Your task to perform on an android device: turn vacation reply on in the gmail app Image 0: 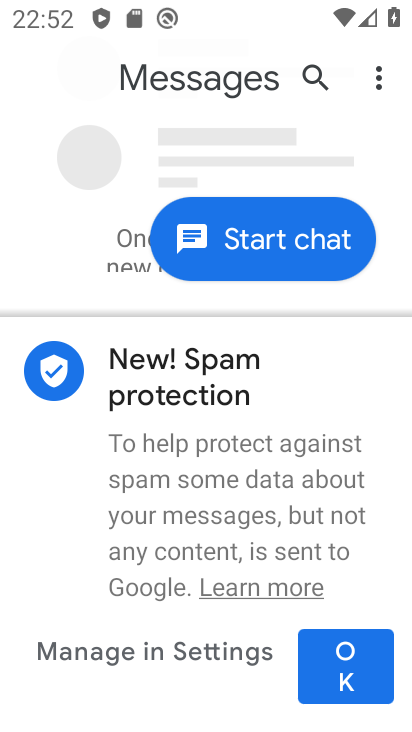
Step 0: press home button
Your task to perform on an android device: turn vacation reply on in the gmail app Image 1: 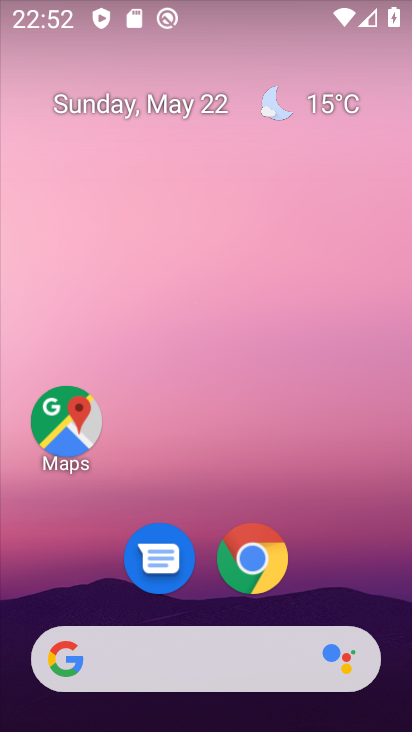
Step 1: drag from (352, 594) to (318, 7)
Your task to perform on an android device: turn vacation reply on in the gmail app Image 2: 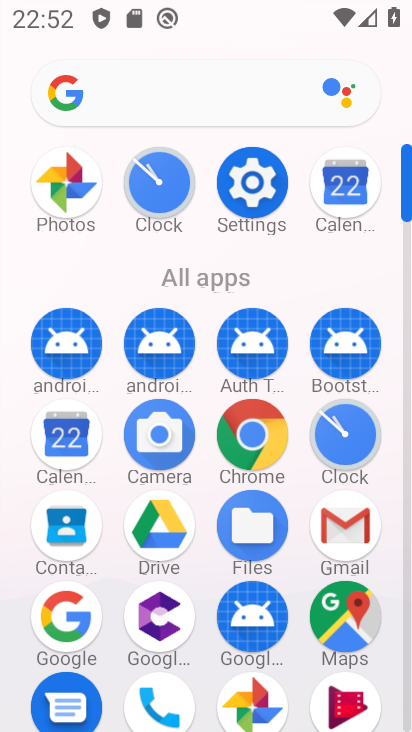
Step 2: click (351, 529)
Your task to perform on an android device: turn vacation reply on in the gmail app Image 3: 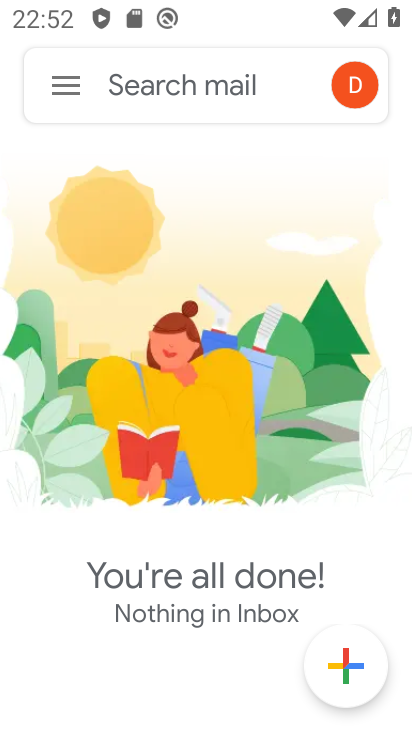
Step 3: click (62, 86)
Your task to perform on an android device: turn vacation reply on in the gmail app Image 4: 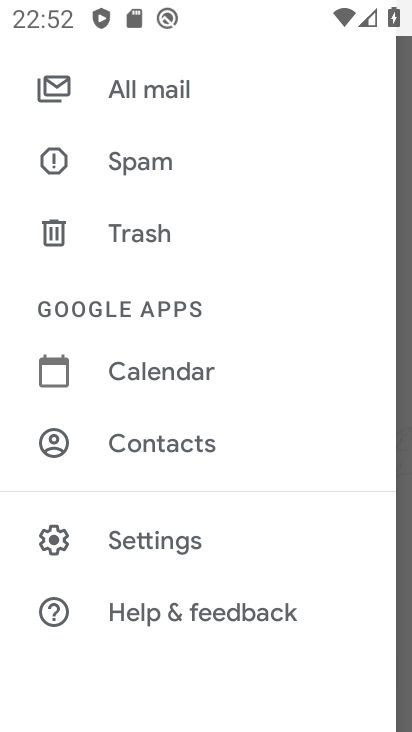
Step 4: click (146, 543)
Your task to perform on an android device: turn vacation reply on in the gmail app Image 5: 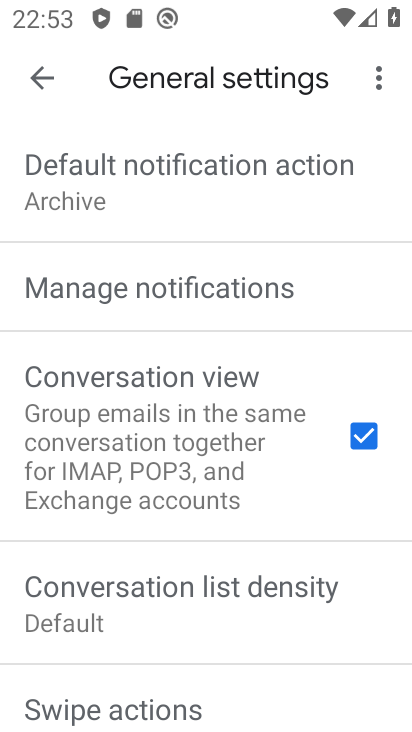
Step 5: click (34, 76)
Your task to perform on an android device: turn vacation reply on in the gmail app Image 6: 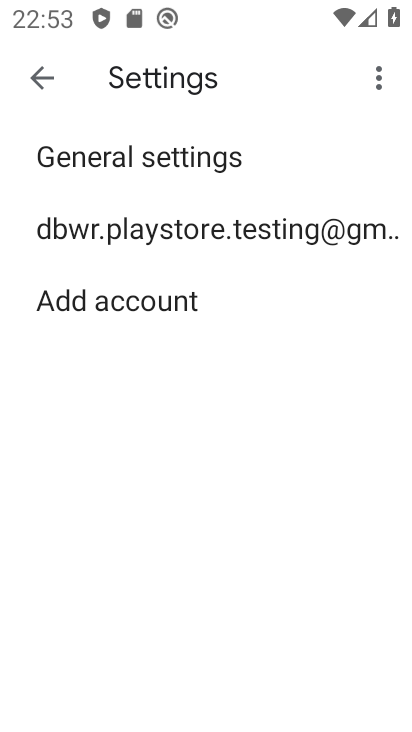
Step 6: click (124, 225)
Your task to perform on an android device: turn vacation reply on in the gmail app Image 7: 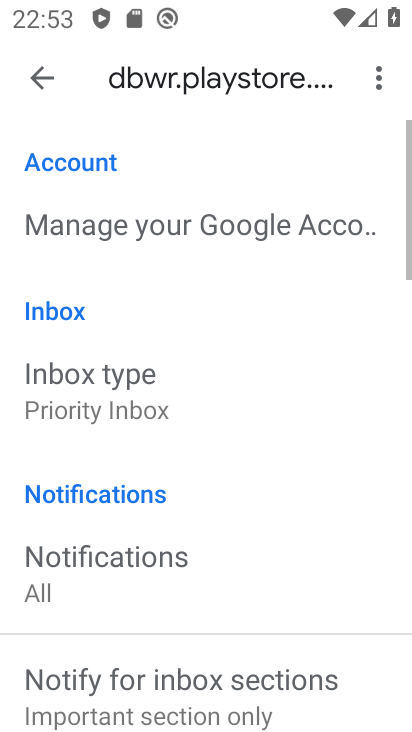
Step 7: drag from (207, 570) to (202, 127)
Your task to perform on an android device: turn vacation reply on in the gmail app Image 8: 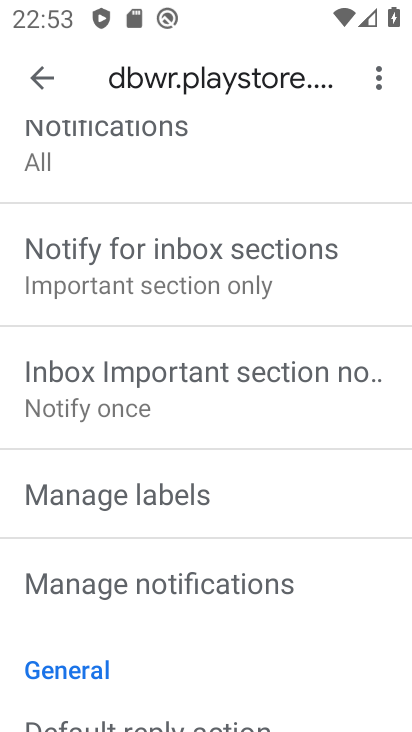
Step 8: drag from (199, 536) to (201, 121)
Your task to perform on an android device: turn vacation reply on in the gmail app Image 9: 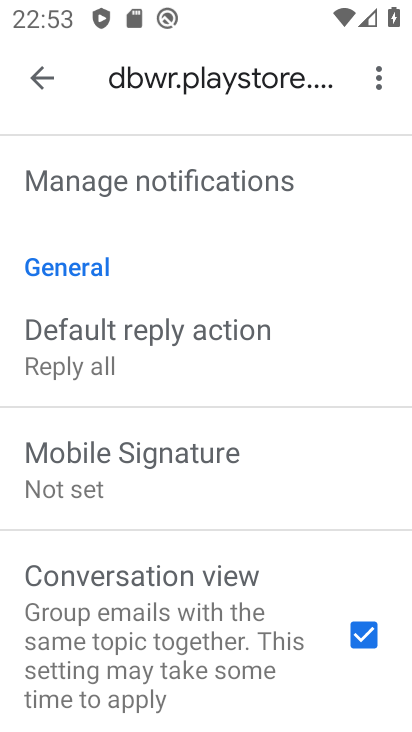
Step 9: drag from (184, 517) to (158, 195)
Your task to perform on an android device: turn vacation reply on in the gmail app Image 10: 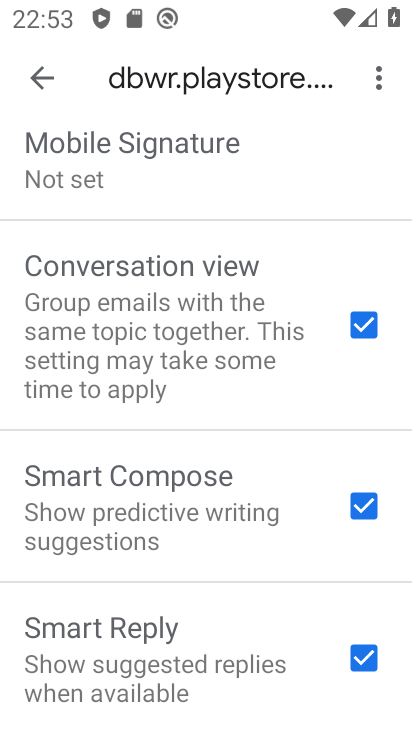
Step 10: drag from (139, 600) to (142, 243)
Your task to perform on an android device: turn vacation reply on in the gmail app Image 11: 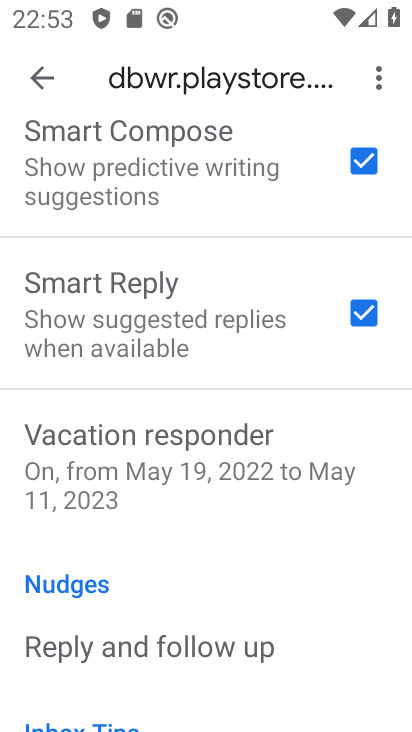
Step 11: click (115, 455)
Your task to perform on an android device: turn vacation reply on in the gmail app Image 12: 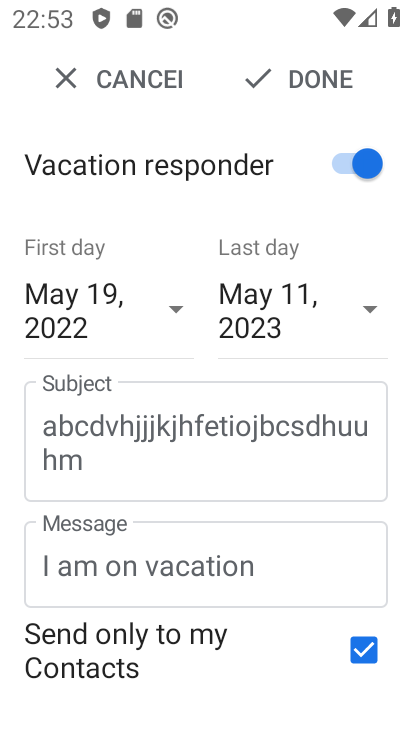
Step 12: click (304, 84)
Your task to perform on an android device: turn vacation reply on in the gmail app Image 13: 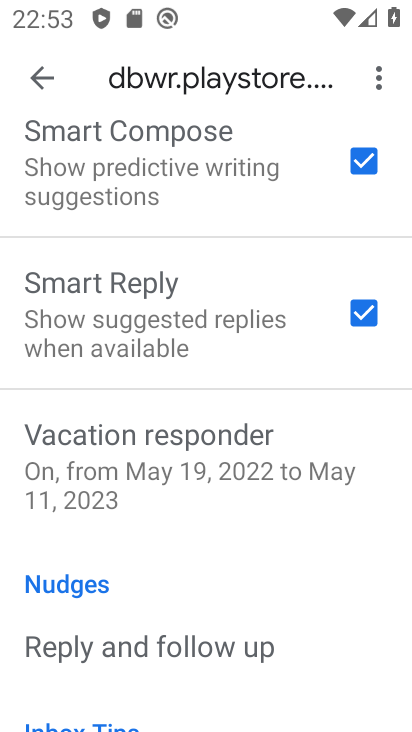
Step 13: task complete